Your task to perform on an android device: Go to internet settings Image 0: 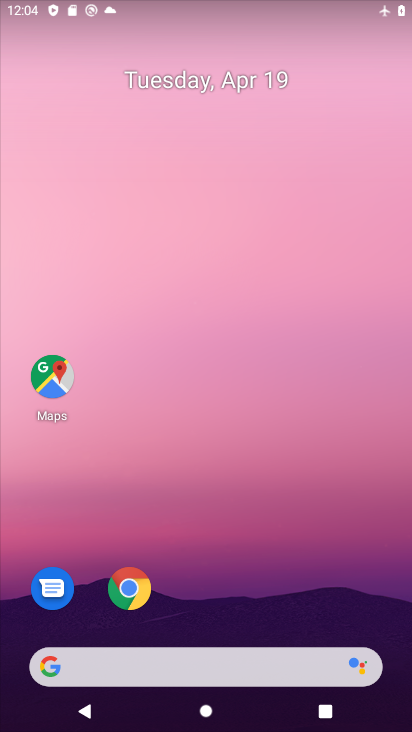
Step 0: drag from (353, 560) to (351, 164)
Your task to perform on an android device: Go to internet settings Image 1: 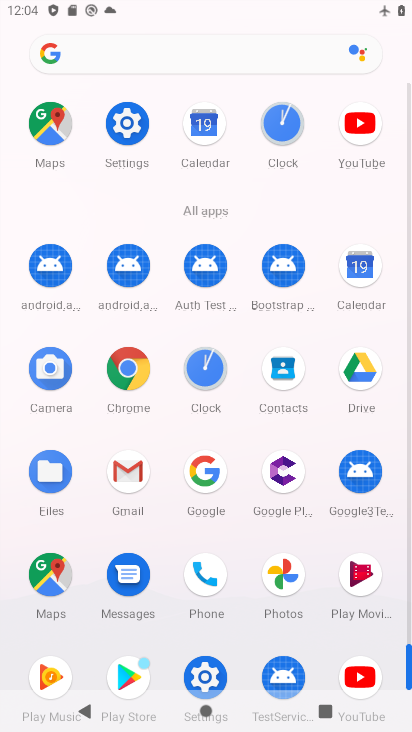
Step 1: click (127, 130)
Your task to perform on an android device: Go to internet settings Image 2: 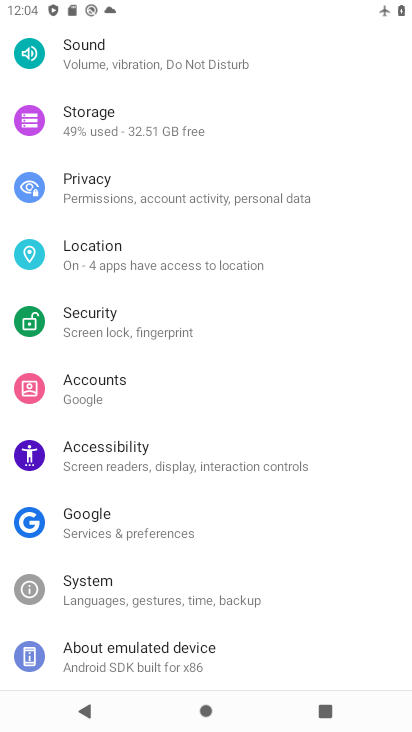
Step 2: drag from (372, 573) to (374, 247)
Your task to perform on an android device: Go to internet settings Image 3: 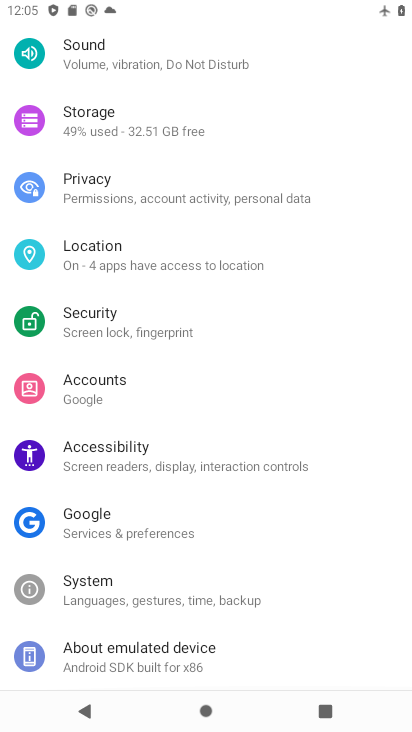
Step 3: drag from (371, 213) to (375, 494)
Your task to perform on an android device: Go to internet settings Image 4: 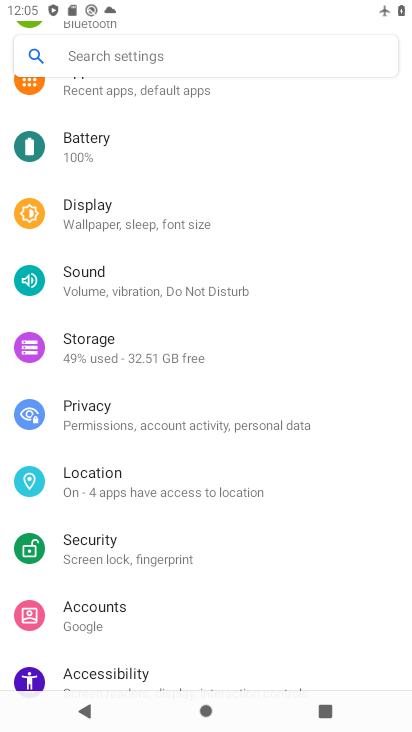
Step 4: drag from (363, 260) to (352, 476)
Your task to perform on an android device: Go to internet settings Image 5: 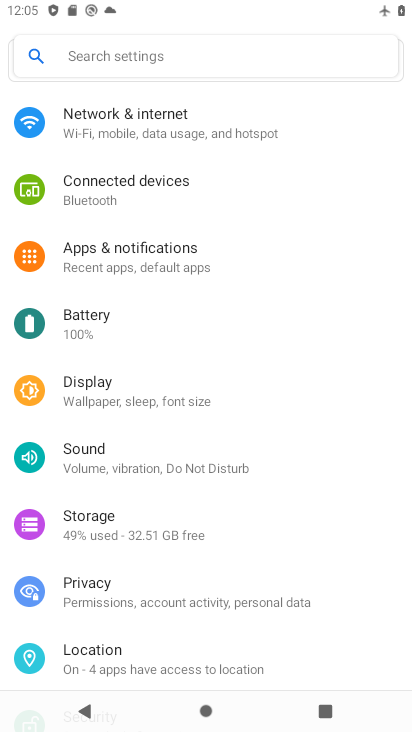
Step 5: drag from (349, 203) to (355, 447)
Your task to perform on an android device: Go to internet settings Image 6: 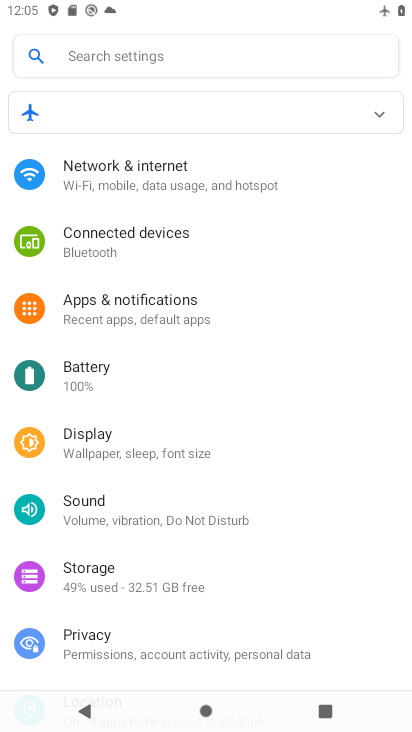
Step 6: click (204, 168)
Your task to perform on an android device: Go to internet settings Image 7: 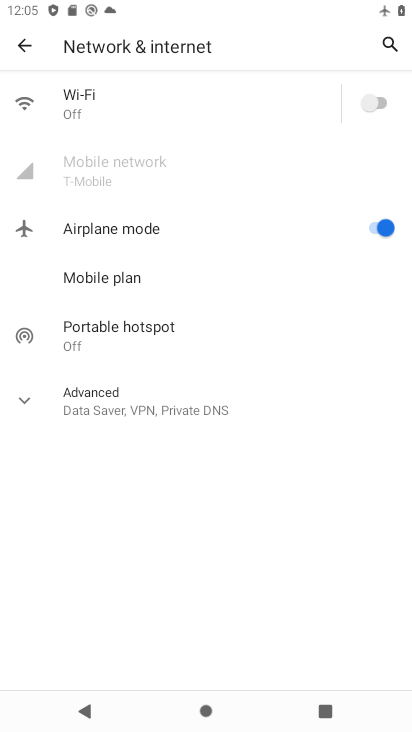
Step 7: task complete